Your task to perform on an android device: Open ESPN.com Image 0: 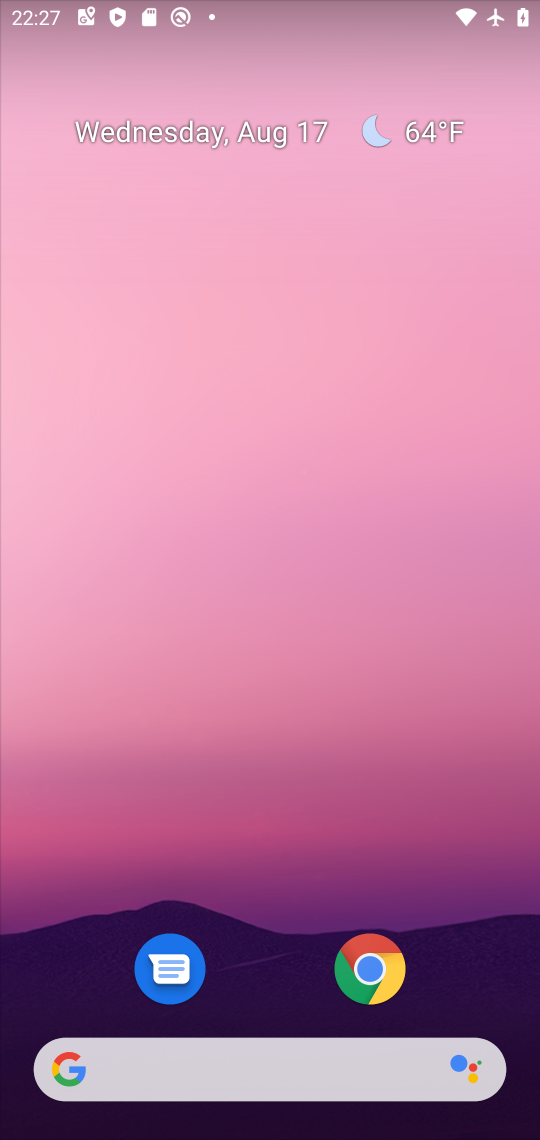
Step 0: click (370, 977)
Your task to perform on an android device: Open ESPN.com Image 1: 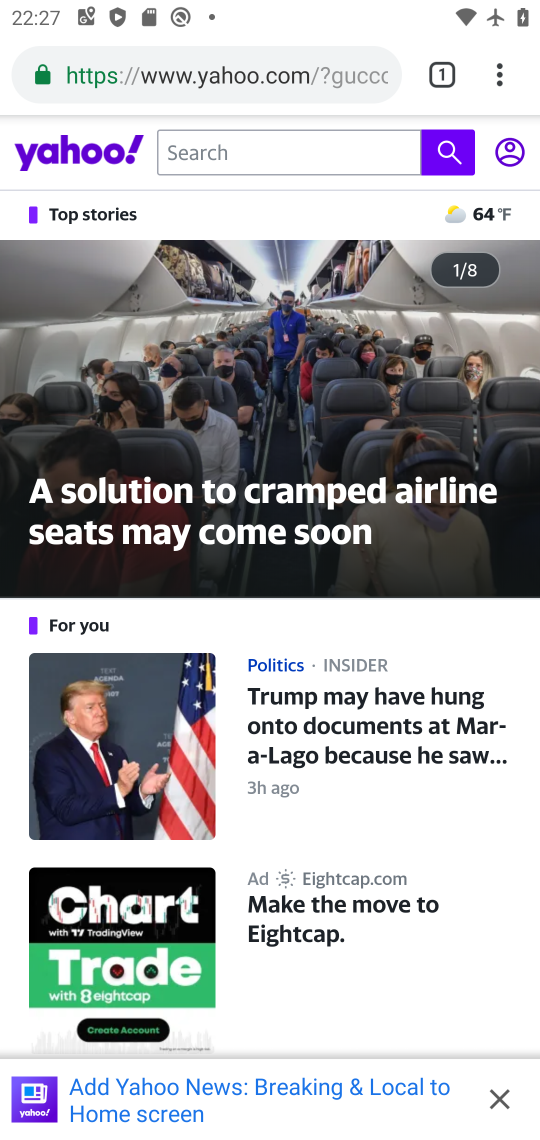
Step 1: click (505, 76)
Your task to perform on an android device: Open ESPN.com Image 2: 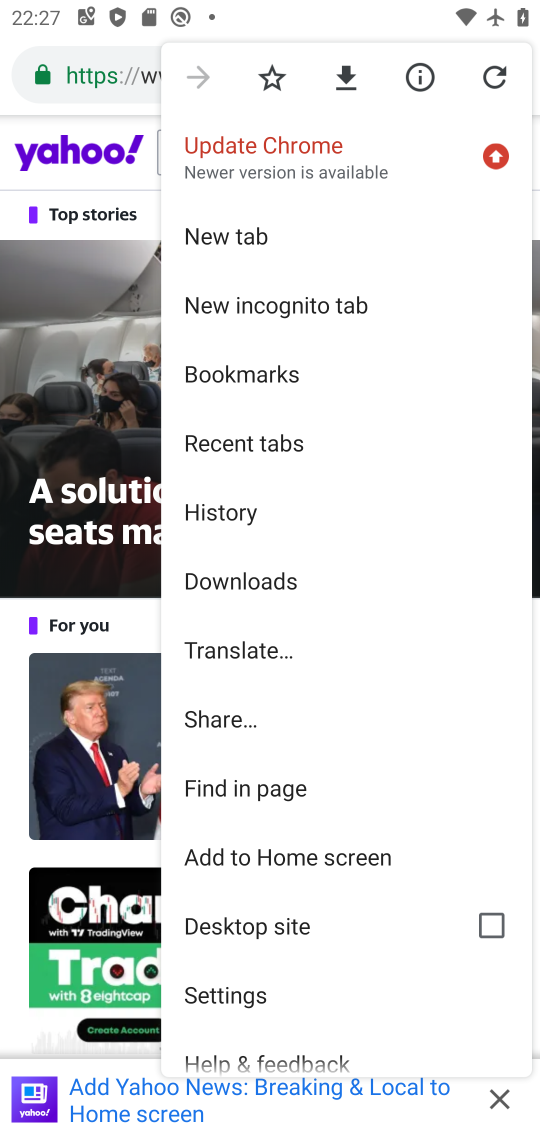
Step 2: click (233, 223)
Your task to perform on an android device: Open ESPN.com Image 3: 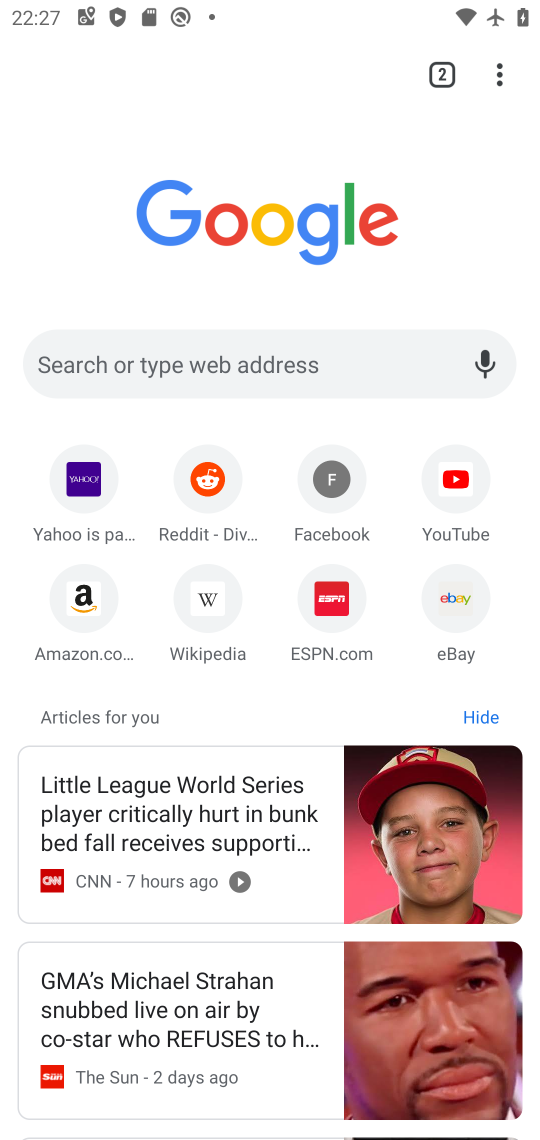
Step 3: click (326, 599)
Your task to perform on an android device: Open ESPN.com Image 4: 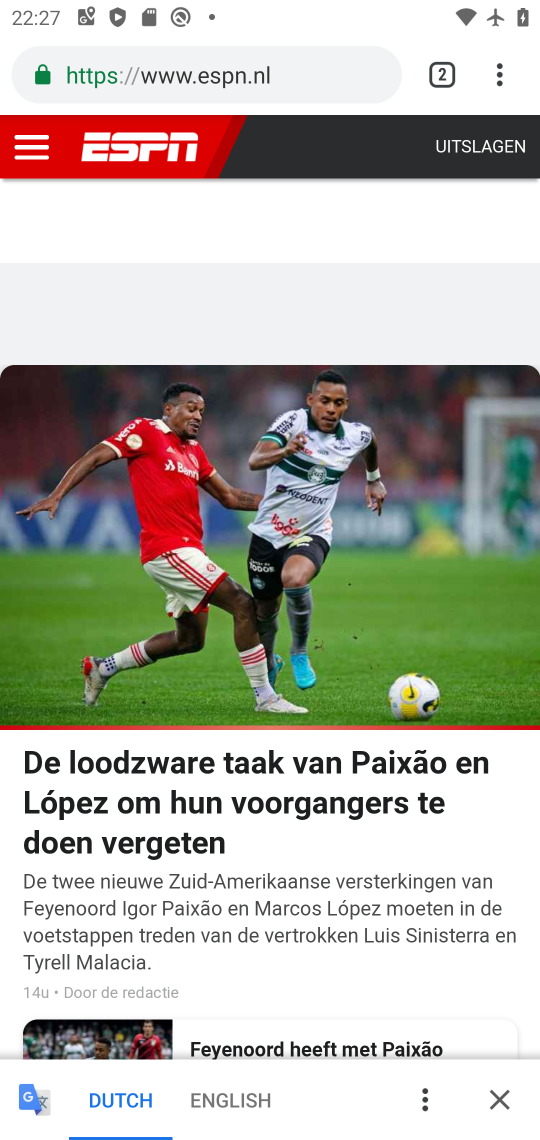
Step 4: task complete